Your task to perform on an android device: change notification settings in the gmail app Image 0: 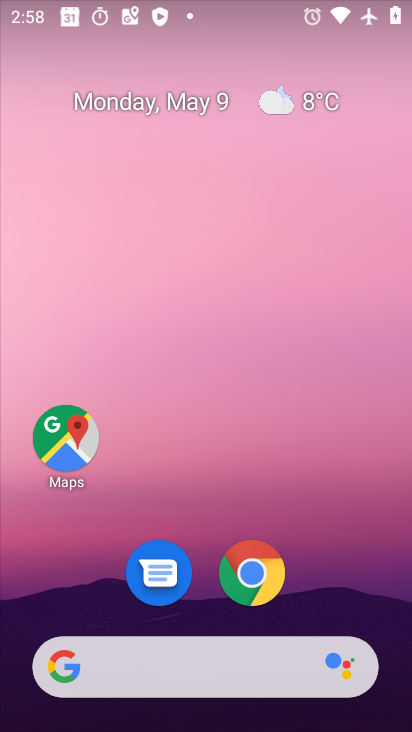
Step 0: drag from (247, 662) to (380, 282)
Your task to perform on an android device: change notification settings in the gmail app Image 1: 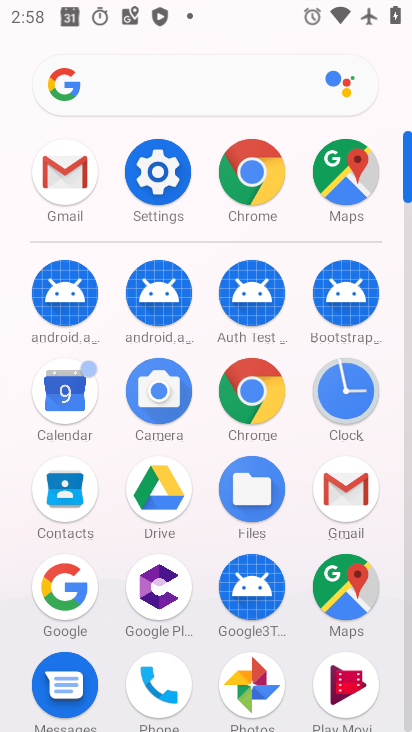
Step 1: click (67, 181)
Your task to perform on an android device: change notification settings in the gmail app Image 2: 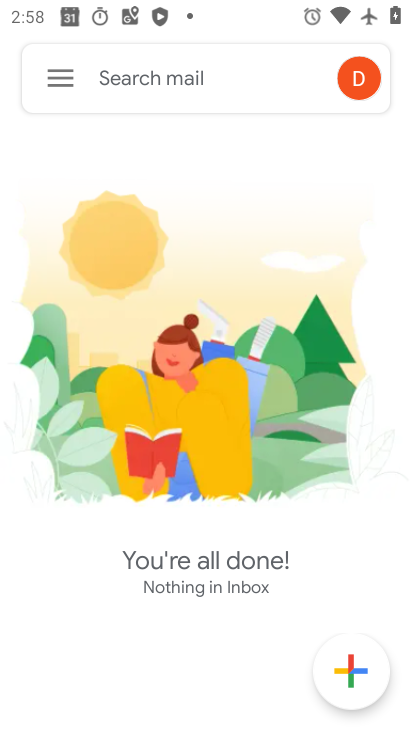
Step 2: click (62, 83)
Your task to perform on an android device: change notification settings in the gmail app Image 3: 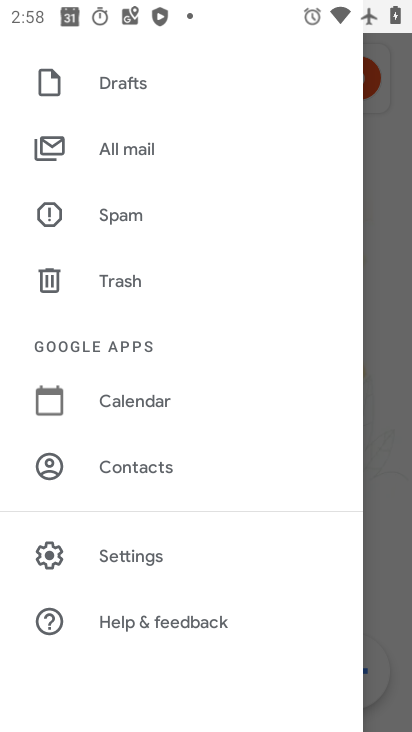
Step 3: click (157, 560)
Your task to perform on an android device: change notification settings in the gmail app Image 4: 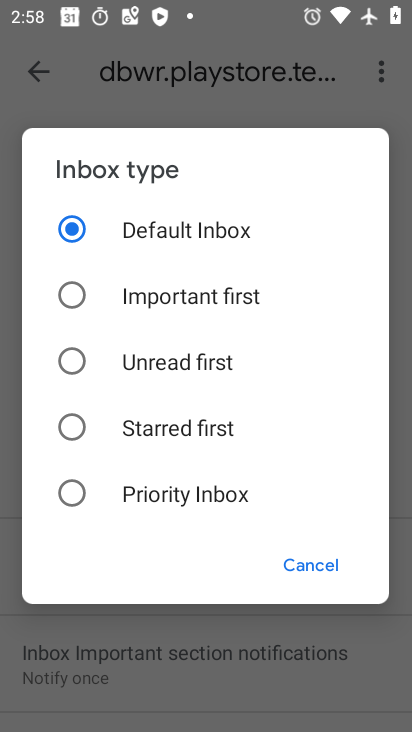
Step 4: click (303, 571)
Your task to perform on an android device: change notification settings in the gmail app Image 5: 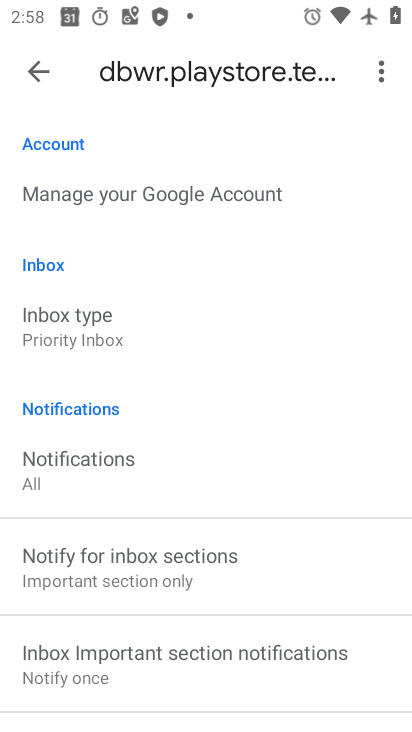
Step 5: click (83, 472)
Your task to perform on an android device: change notification settings in the gmail app Image 6: 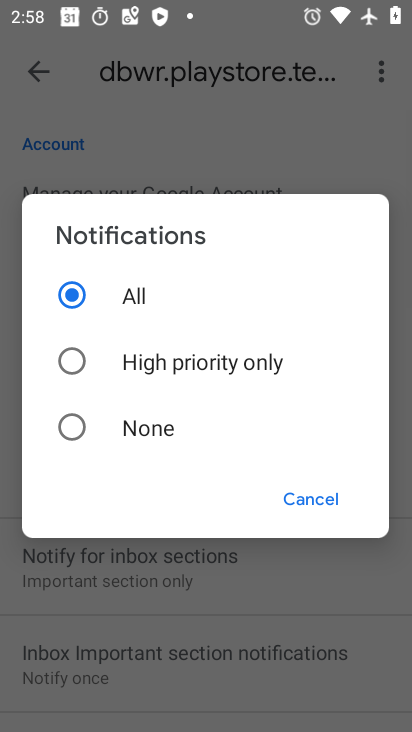
Step 6: click (62, 359)
Your task to perform on an android device: change notification settings in the gmail app Image 7: 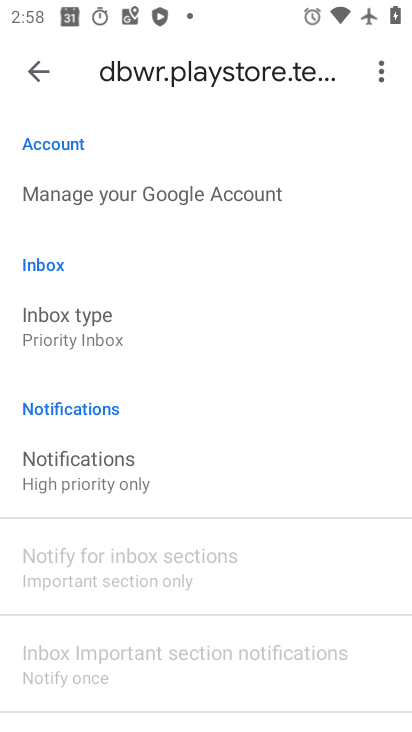
Step 7: task complete